Your task to perform on an android device: Open Google Maps Image 0: 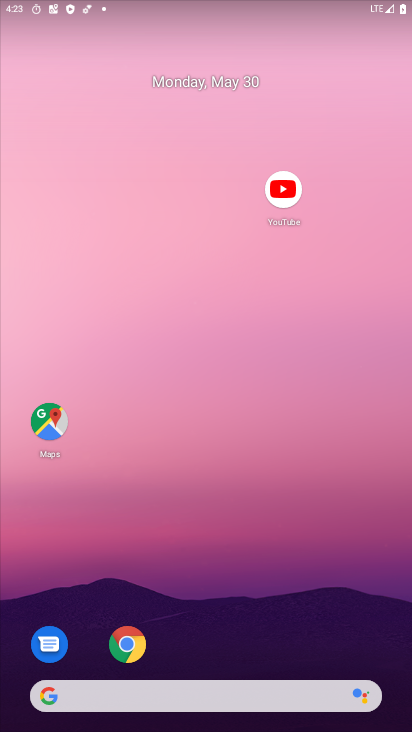
Step 0: click (51, 436)
Your task to perform on an android device: Open Google Maps Image 1: 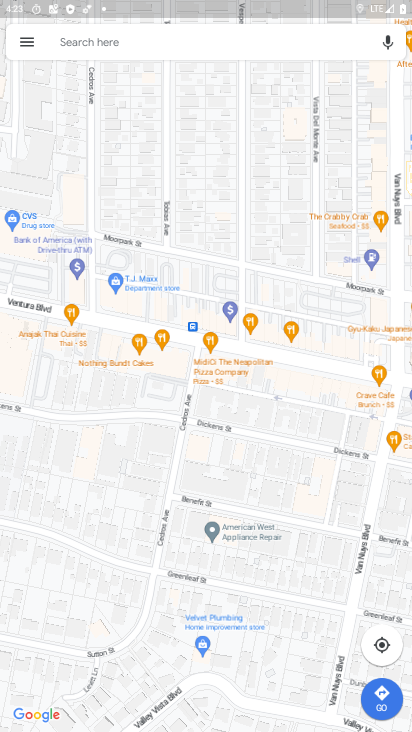
Step 1: task complete